Your task to perform on an android device: turn off wifi Image 0: 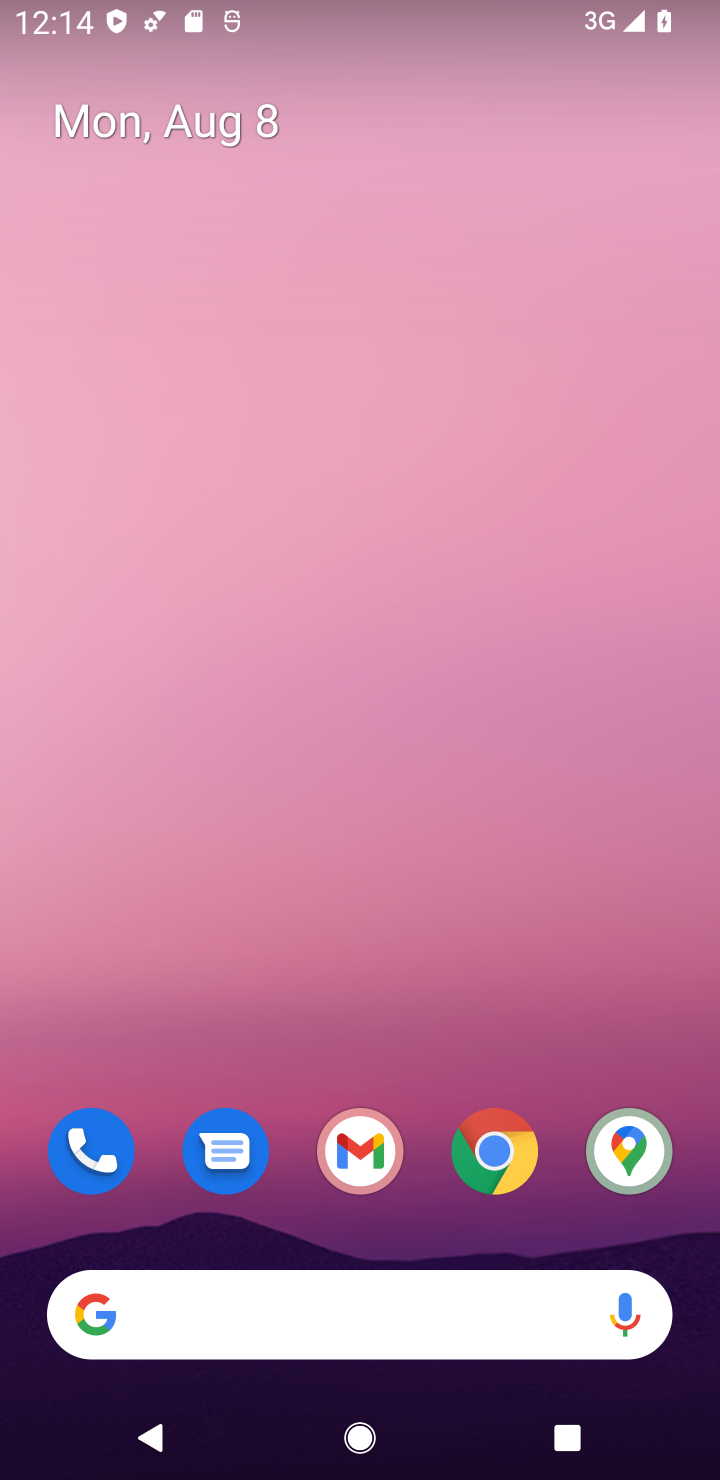
Step 0: drag from (377, 1184) to (324, 465)
Your task to perform on an android device: turn off wifi Image 1: 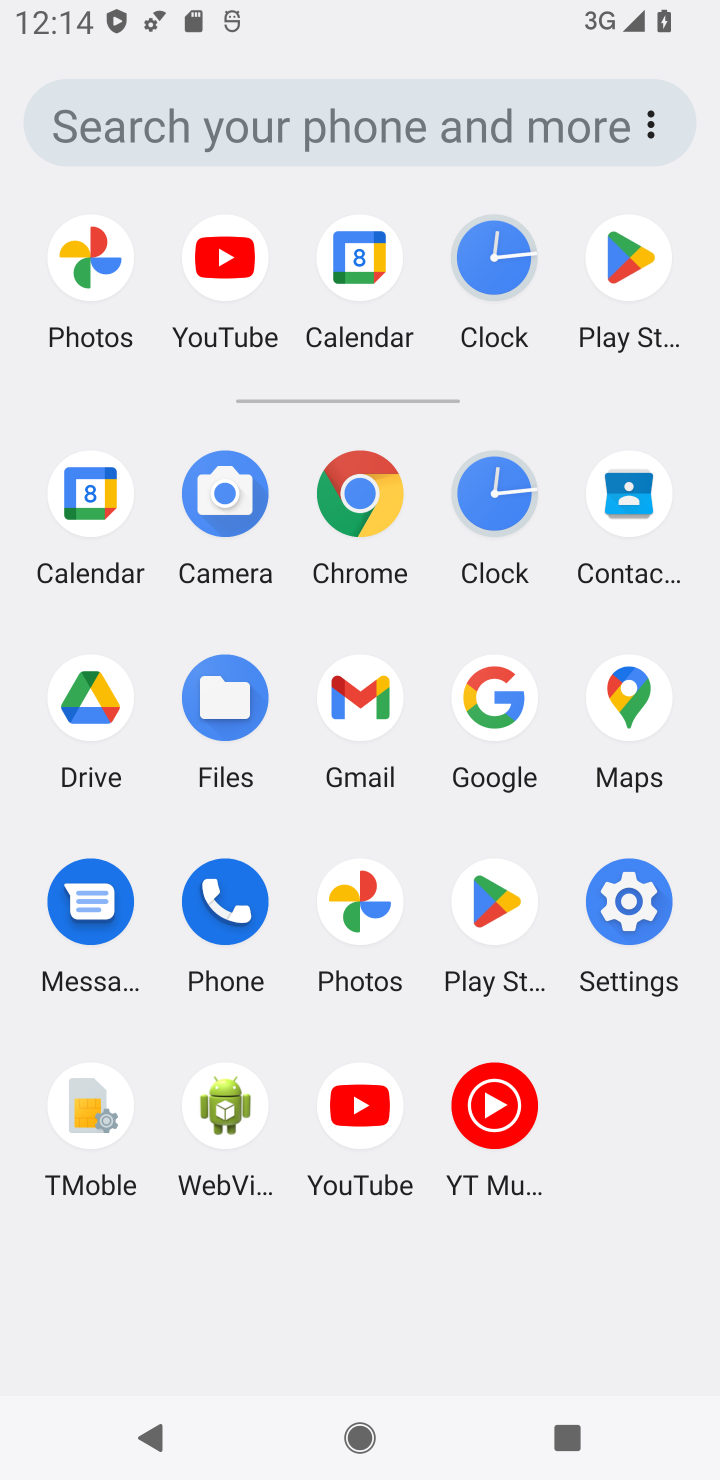
Step 1: click (623, 905)
Your task to perform on an android device: turn off wifi Image 2: 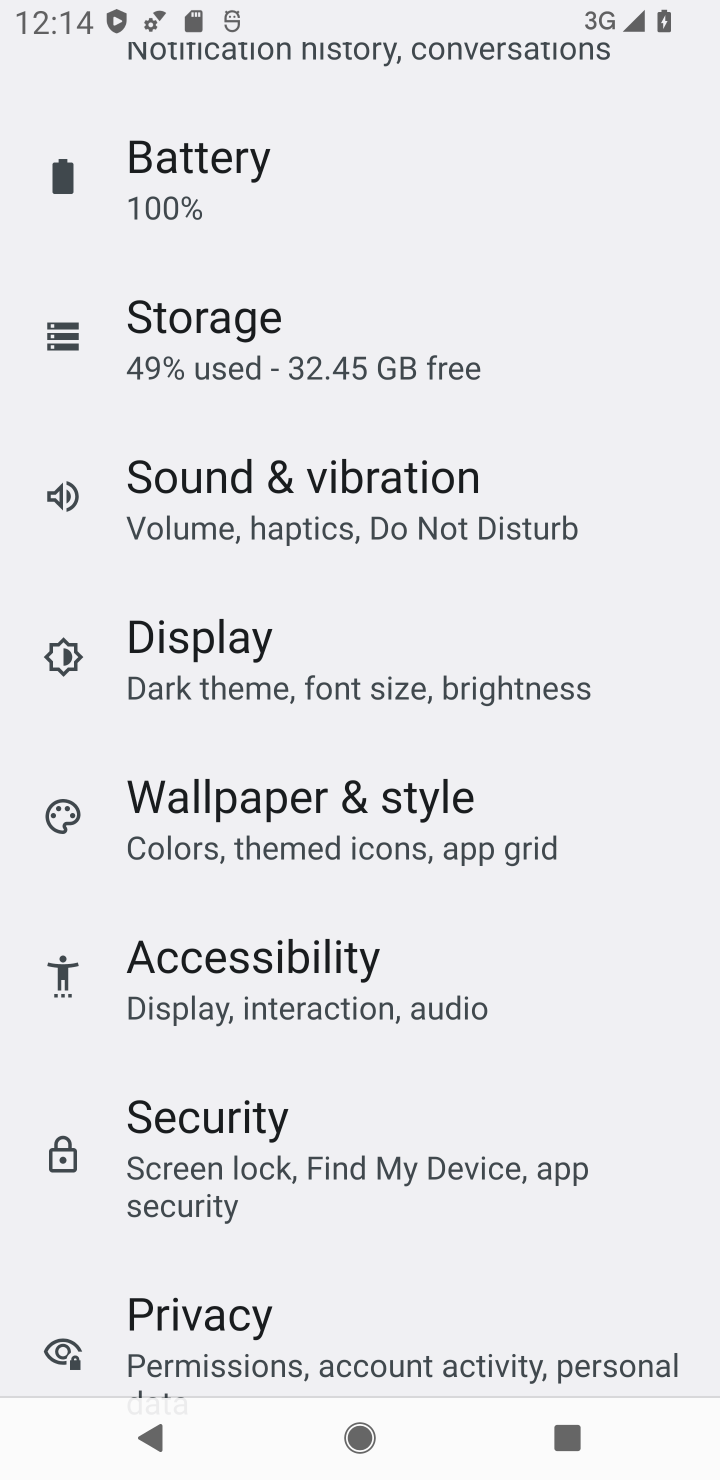
Step 2: drag from (256, 133) to (384, 871)
Your task to perform on an android device: turn off wifi Image 3: 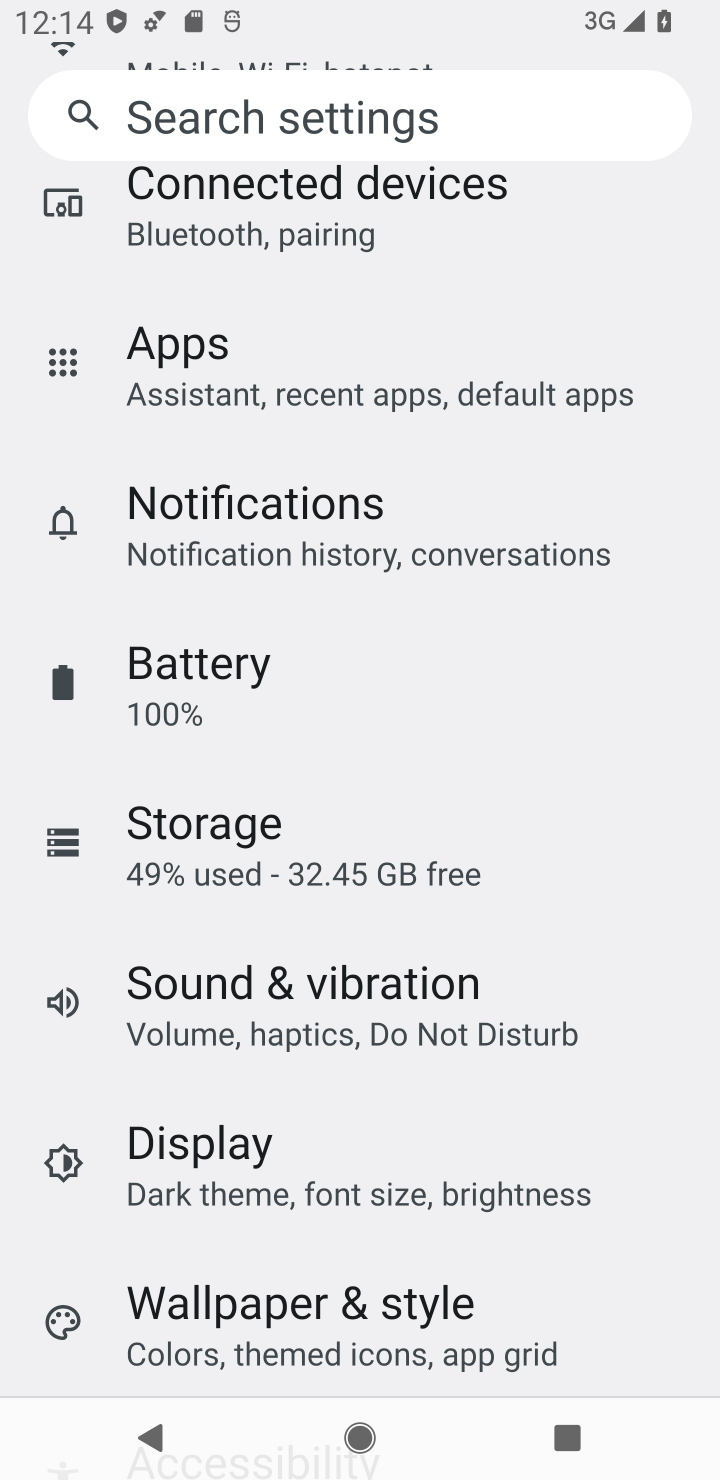
Step 3: drag from (267, 263) to (306, 841)
Your task to perform on an android device: turn off wifi Image 4: 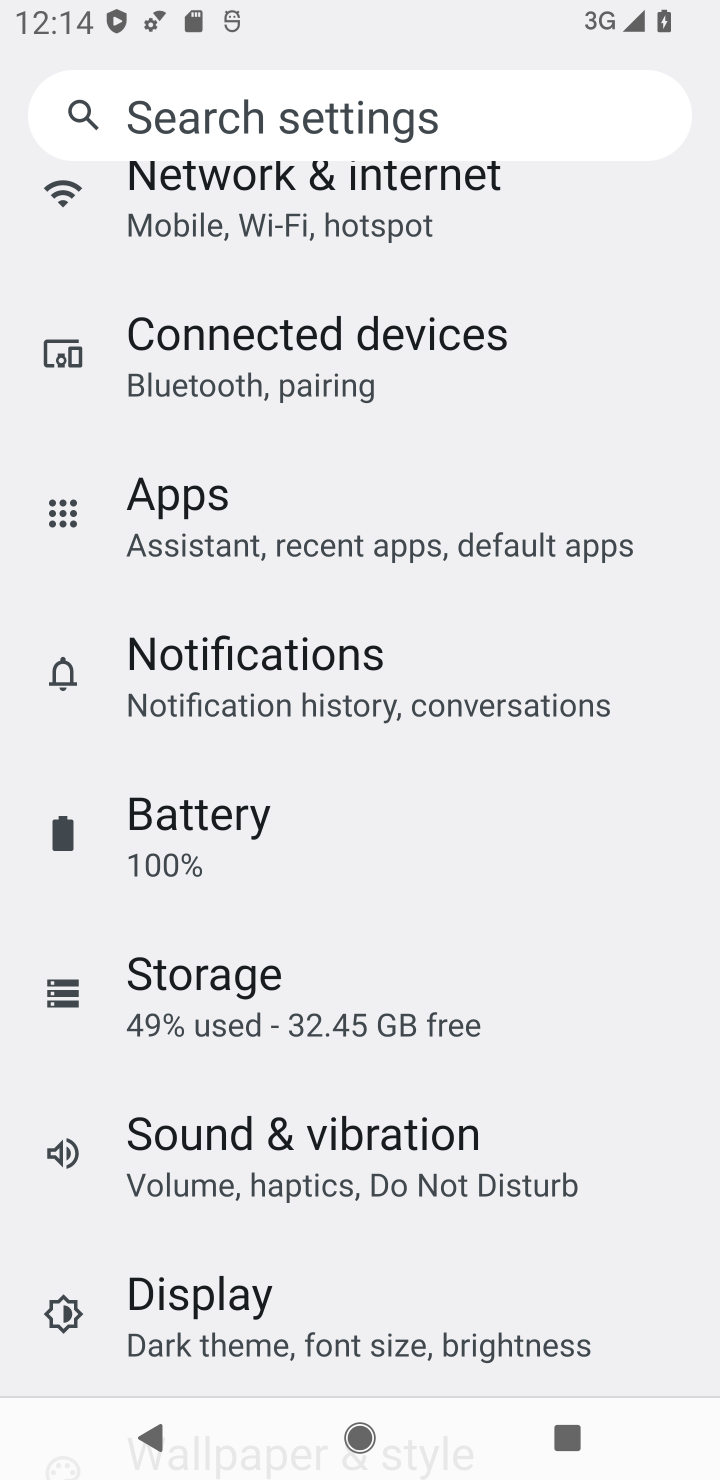
Step 4: drag from (248, 179) to (388, 826)
Your task to perform on an android device: turn off wifi Image 5: 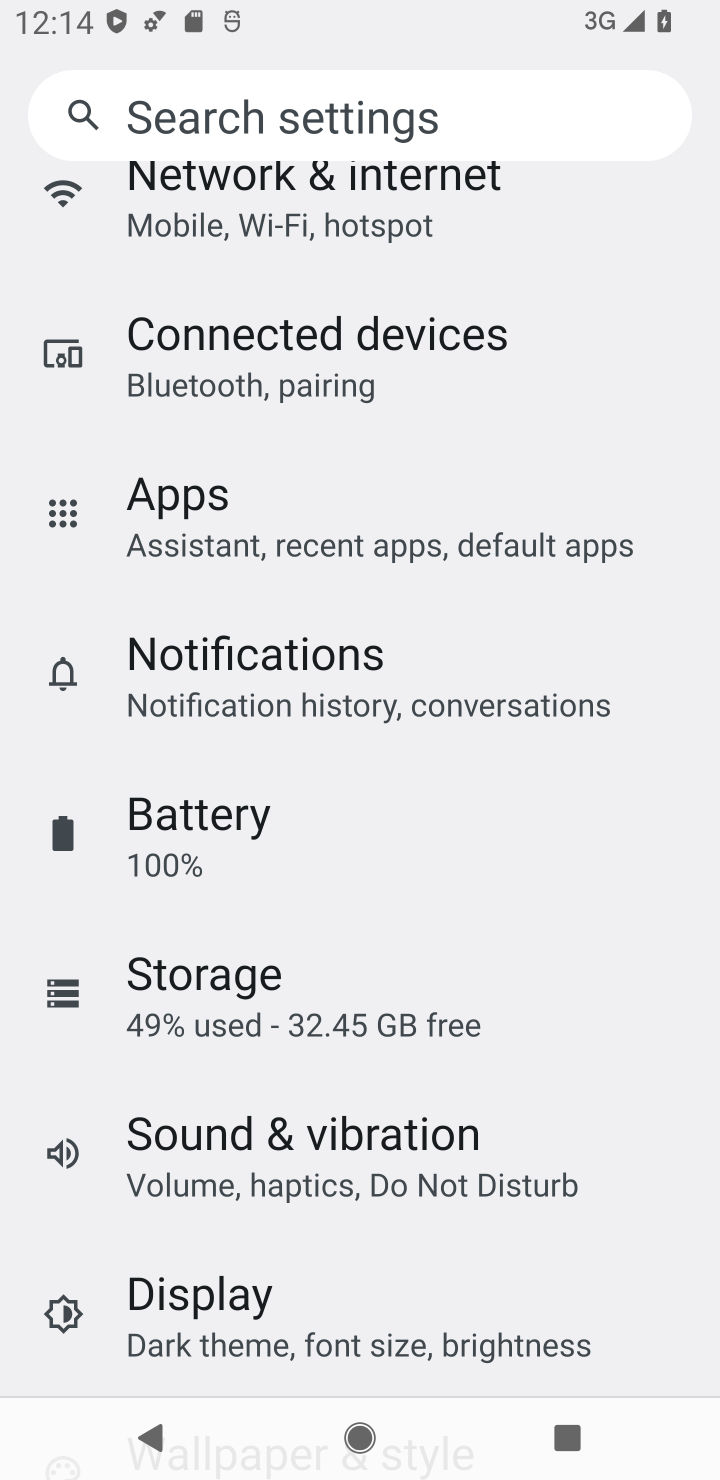
Step 5: click (239, 216)
Your task to perform on an android device: turn off wifi Image 6: 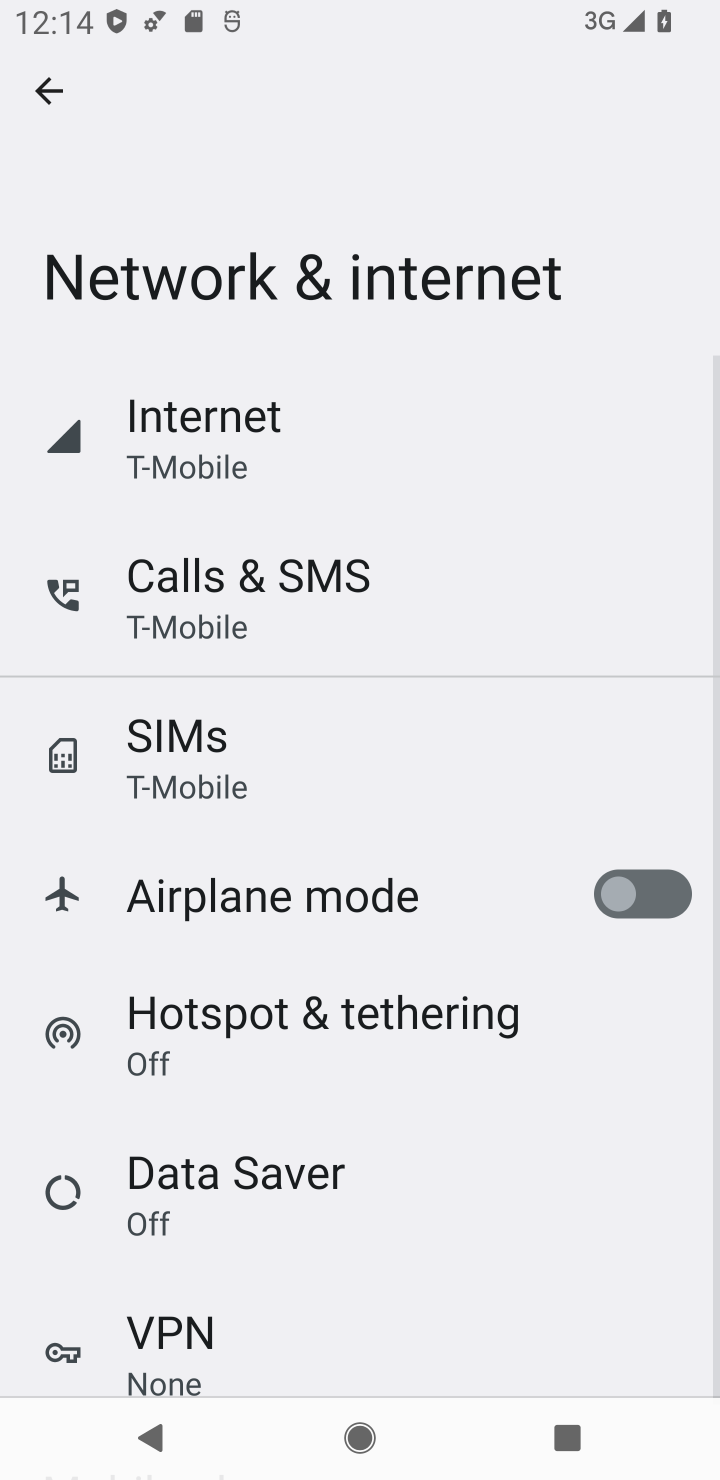
Step 6: click (241, 434)
Your task to perform on an android device: turn off wifi Image 7: 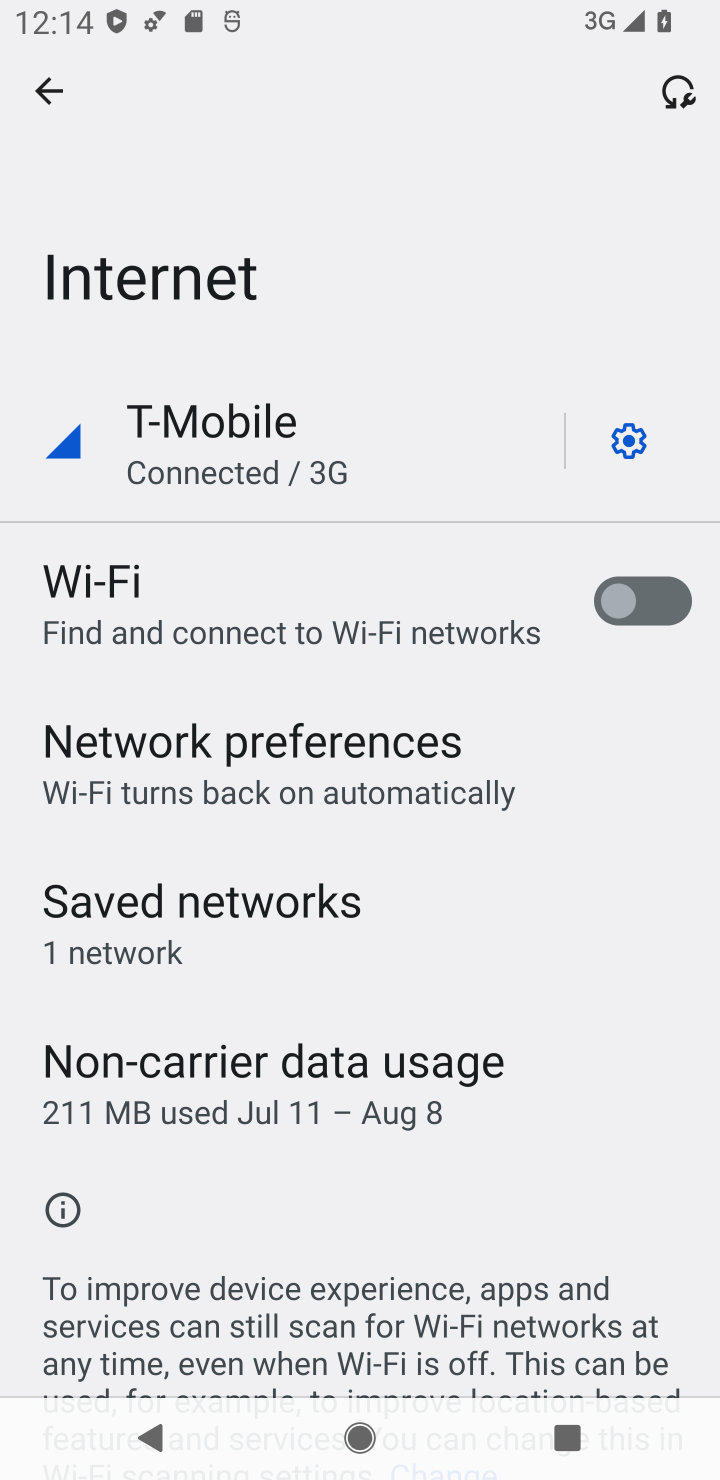
Step 7: task complete